Your task to perform on an android device: empty trash in the gmail app Image 0: 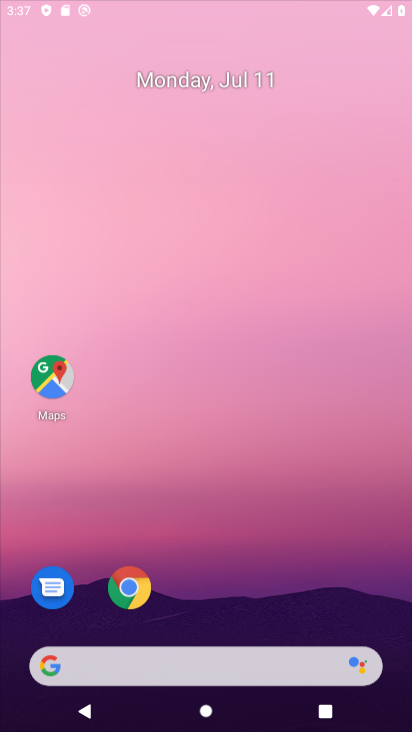
Step 0: press home button
Your task to perform on an android device: empty trash in the gmail app Image 1: 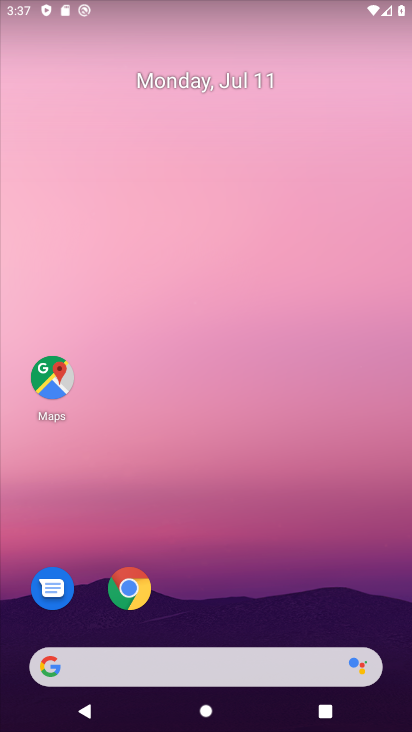
Step 1: drag from (245, 626) to (197, 116)
Your task to perform on an android device: empty trash in the gmail app Image 2: 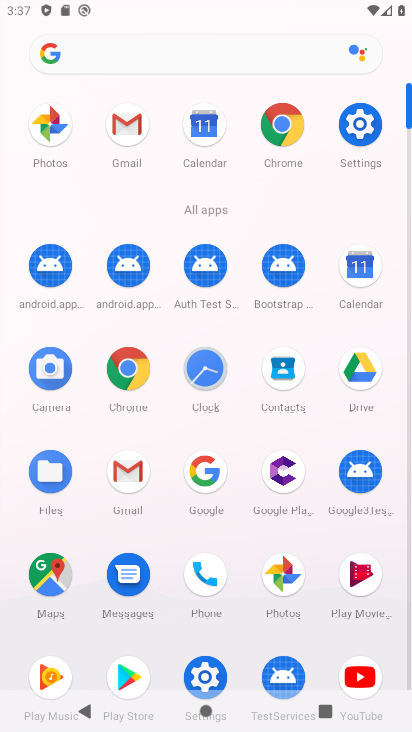
Step 2: click (130, 120)
Your task to perform on an android device: empty trash in the gmail app Image 3: 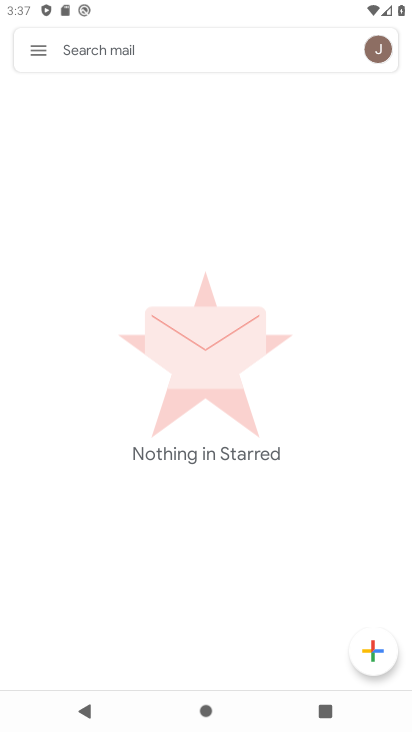
Step 3: click (36, 46)
Your task to perform on an android device: empty trash in the gmail app Image 4: 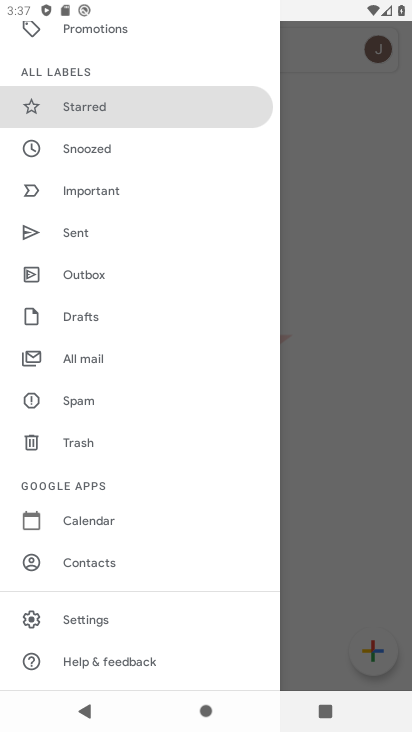
Step 4: click (74, 447)
Your task to perform on an android device: empty trash in the gmail app Image 5: 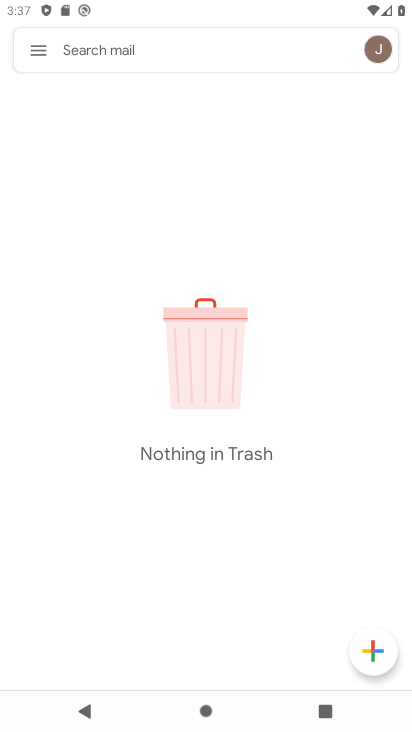
Step 5: task complete